Your task to perform on an android device: turn on the 24-hour format for clock Image 0: 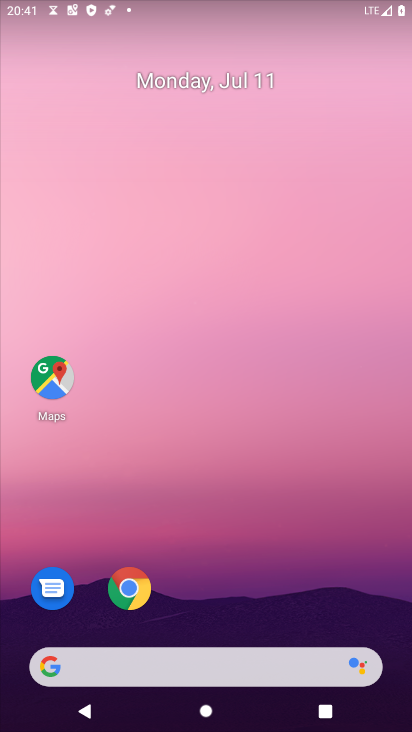
Step 0: drag from (172, 634) to (278, 91)
Your task to perform on an android device: turn on the 24-hour format for clock Image 1: 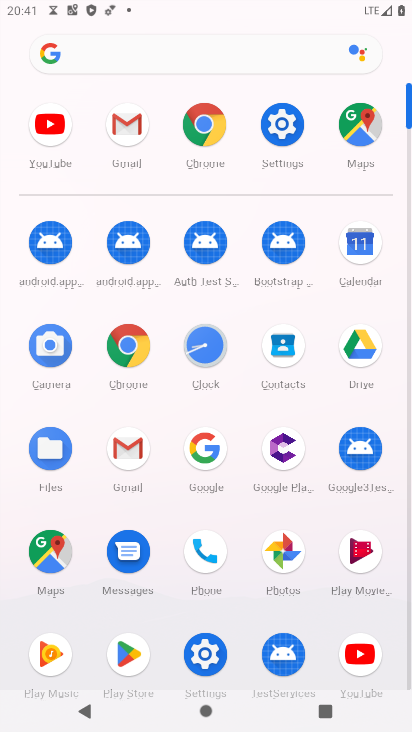
Step 1: click (280, 126)
Your task to perform on an android device: turn on the 24-hour format for clock Image 2: 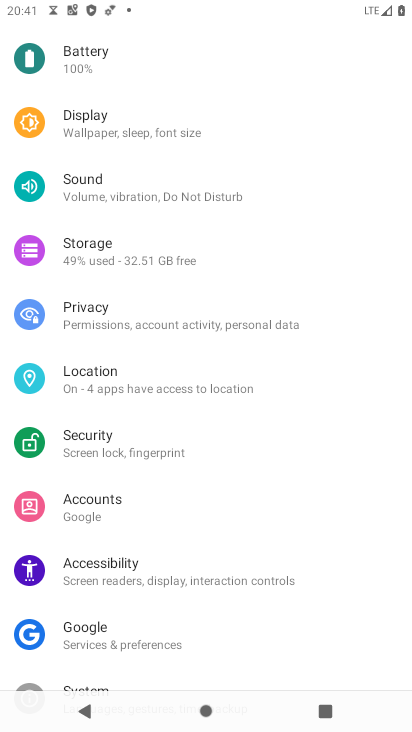
Step 2: drag from (289, 628) to (320, 212)
Your task to perform on an android device: turn on the 24-hour format for clock Image 3: 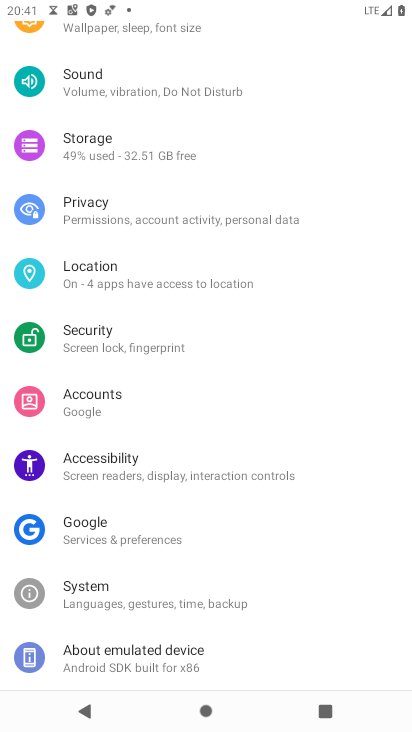
Step 3: click (116, 607)
Your task to perform on an android device: turn on the 24-hour format for clock Image 4: 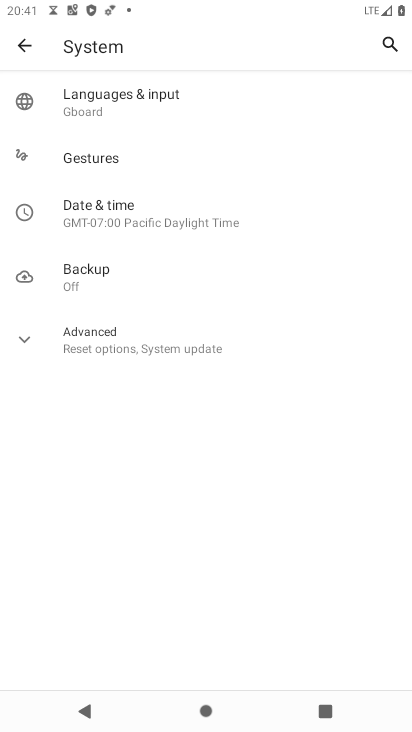
Step 4: click (124, 203)
Your task to perform on an android device: turn on the 24-hour format for clock Image 5: 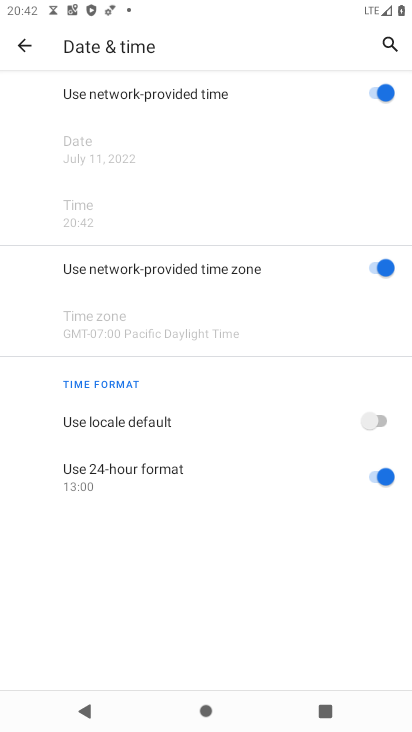
Step 5: task complete